Your task to perform on an android device: Open Google Chrome Image 0: 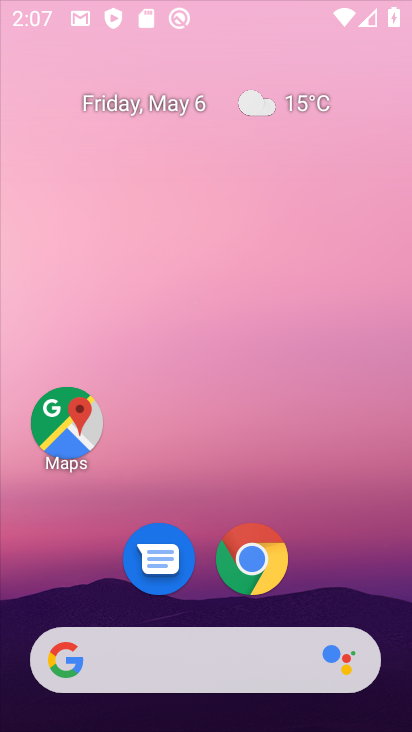
Step 0: click (249, 555)
Your task to perform on an android device: Open Google Chrome Image 1: 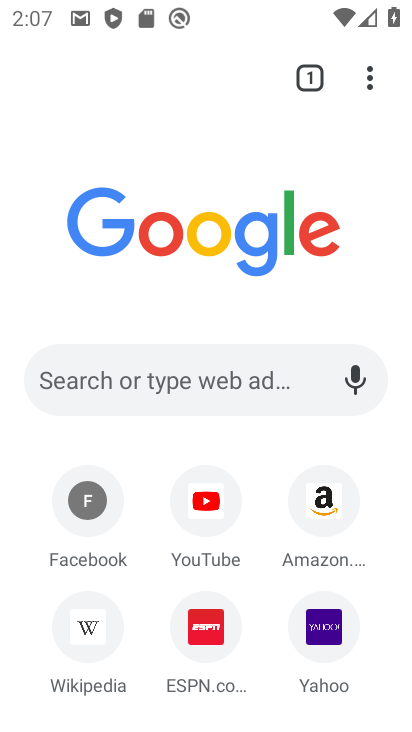
Step 1: task complete